Your task to perform on an android device: Go to display settings Image 0: 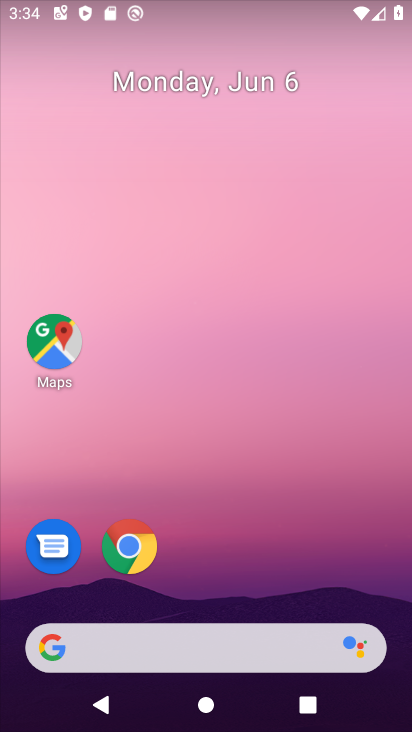
Step 0: task complete